Your task to perform on an android device: install app "YouTube Kids" Image 0: 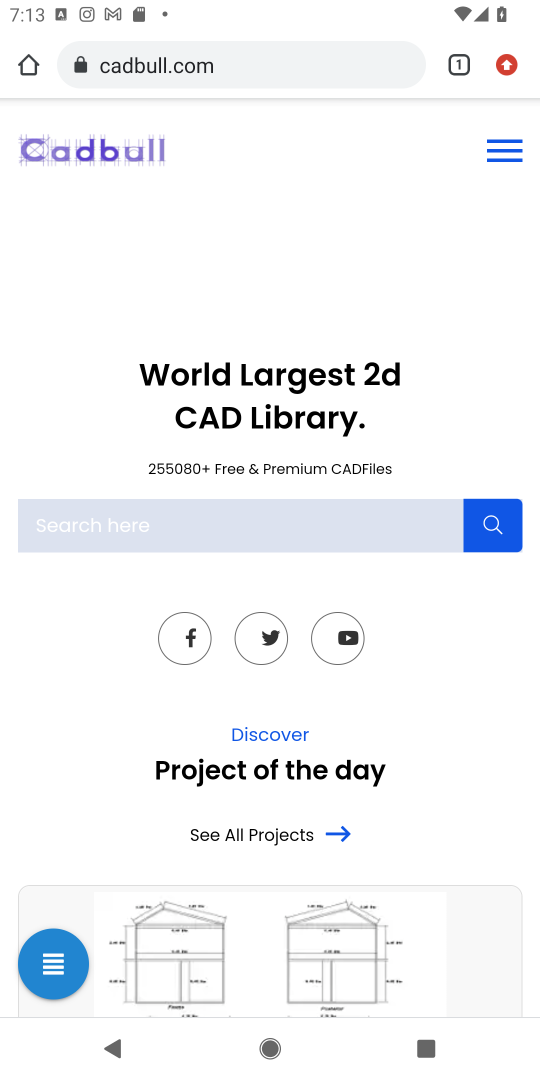
Step 0: press home button
Your task to perform on an android device: install app "YouTube Kids" Image 1: 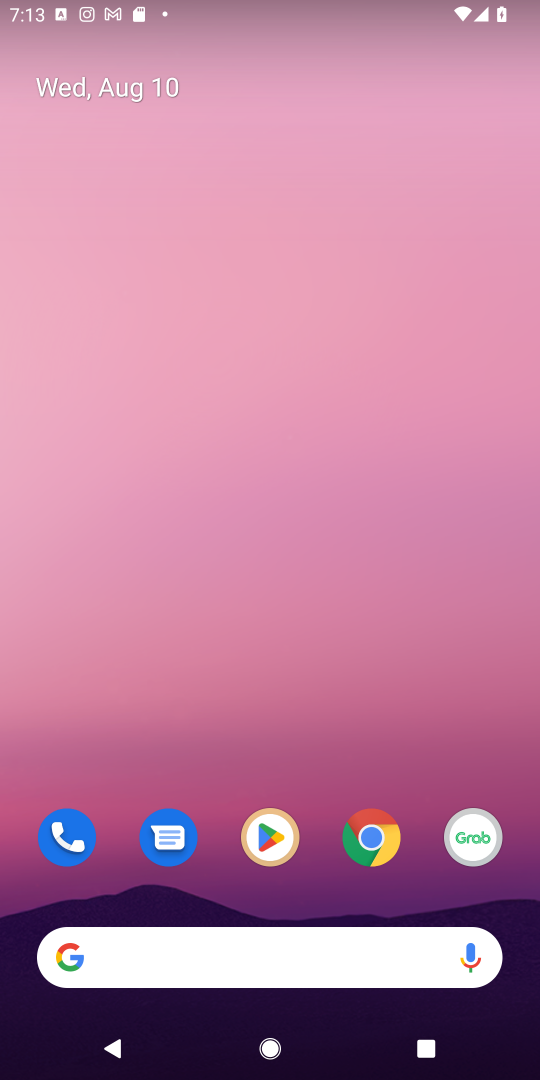
Step 1: click (277, 827)
Your task to perform on an android device: install app "YouTube Kids" Image 2: 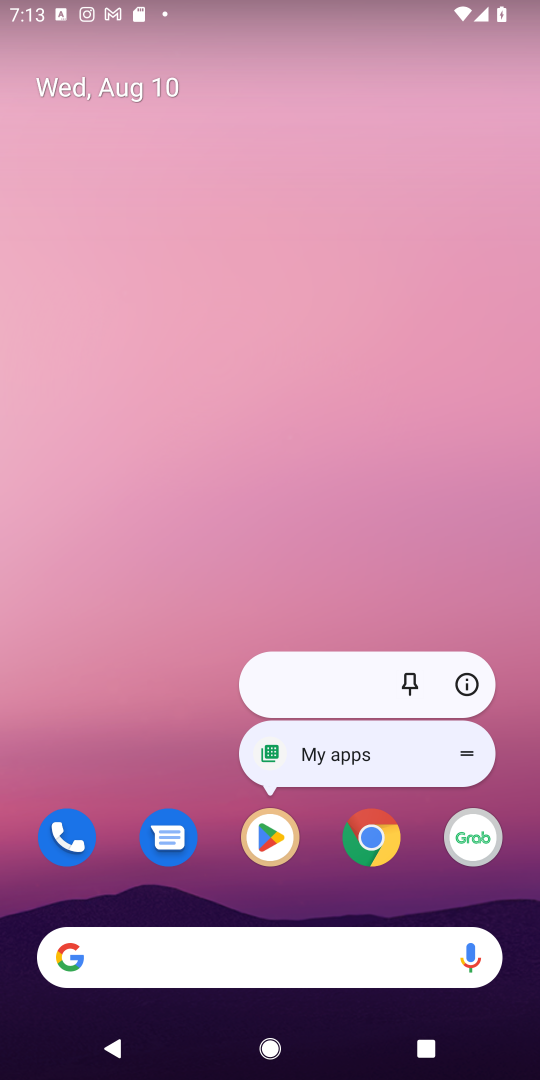
Step 2: click (277, 827)
Your task to perform on an android device: install app "YouTube Kids" Image 3: 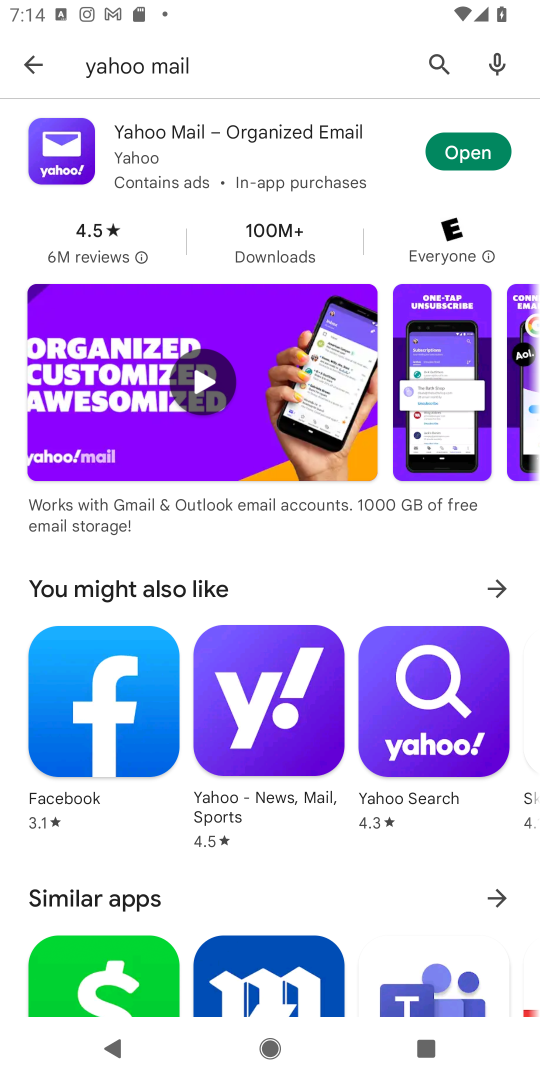
Step 3: click (435, 57)
Your task to perform on an android device: install app "YouTube Kids" Image 4: 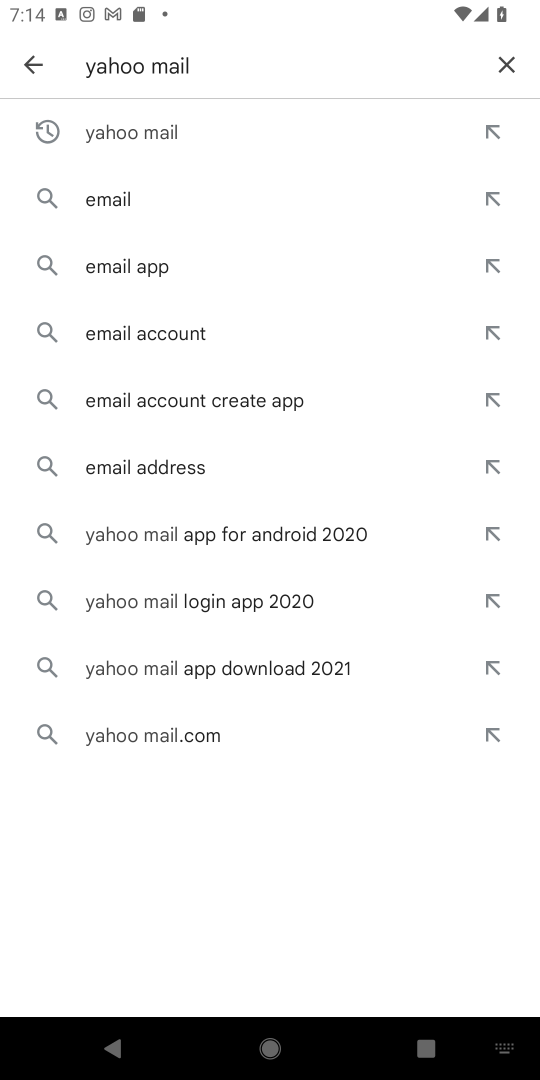
Step 4: click (505, 61)
Your task to perform on an android device: install app "YouTube Kids" Image 5: 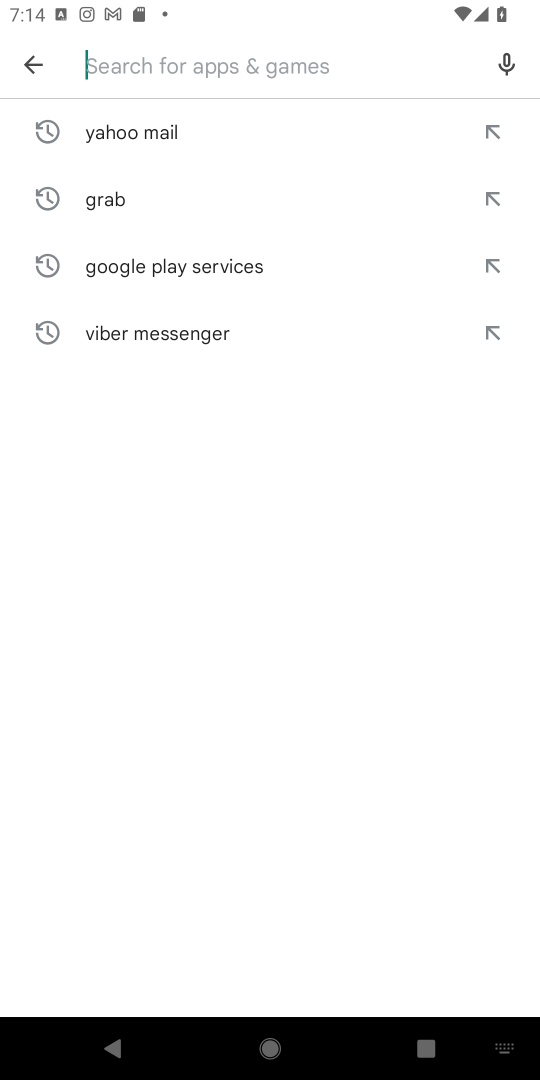
Step 5: type "YouTube Kids"
Your task to perform on an android device: install app "YouTube Kids" Image 6: 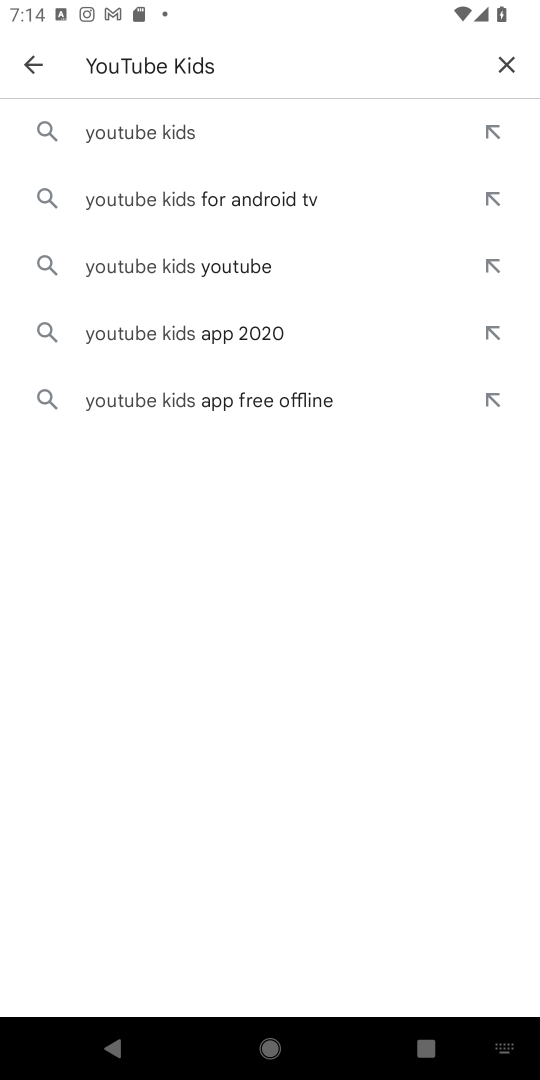
Step 6: click (158, 138)
Your task to perform on an android device: install app "YouTube Kids" Image 7: 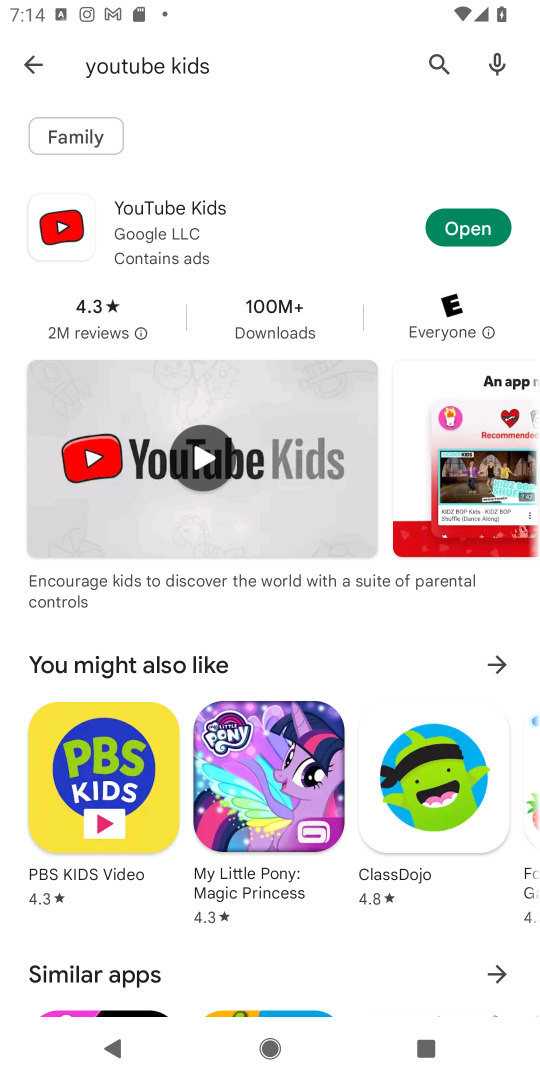
Step 7: task complete